Your task to perform on an android device: Open internet settings Image 0: 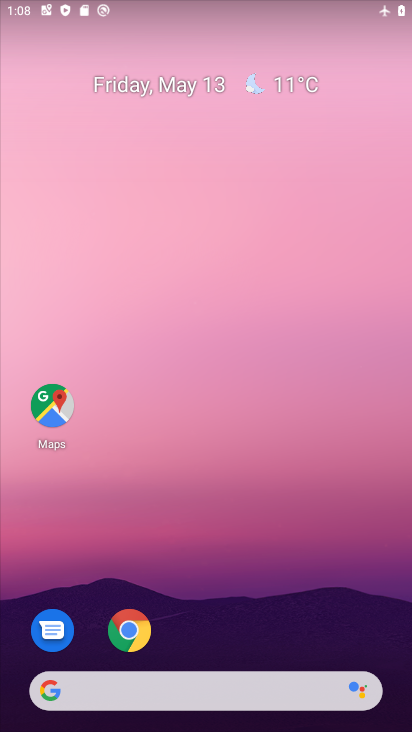
Step 0: drag from (354, 627) to (408, 111)
Your task to perform on an android device: Open internet settings Image 1: 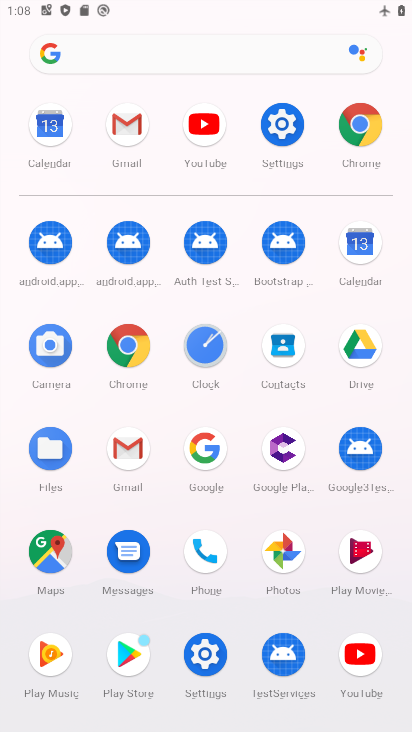
Step 1: click (281, 136)
Your task to perform on an android device: Open internet settings Image 2: 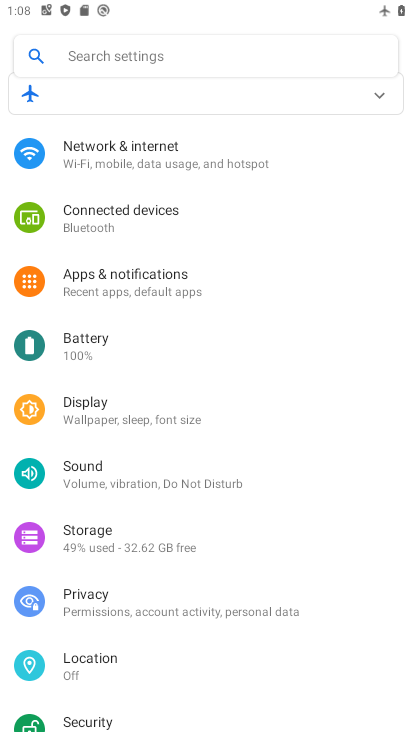
Step 2: click (146, 166)
Your task to perform on an android device: Open internet settings Image 3: 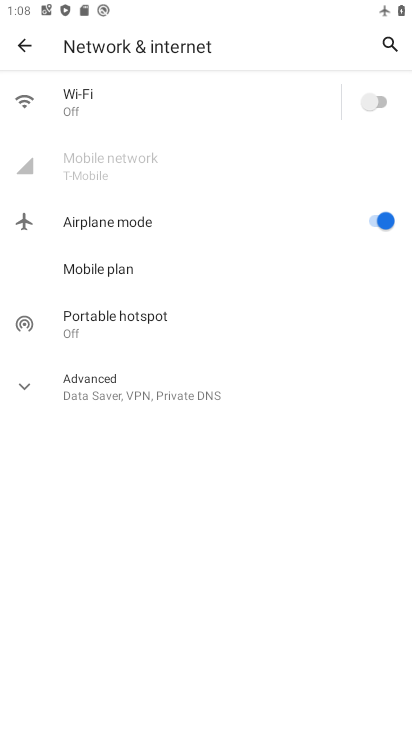
Step 3: task complete